Your task to perform on an android device: Go to location settings Image 0: 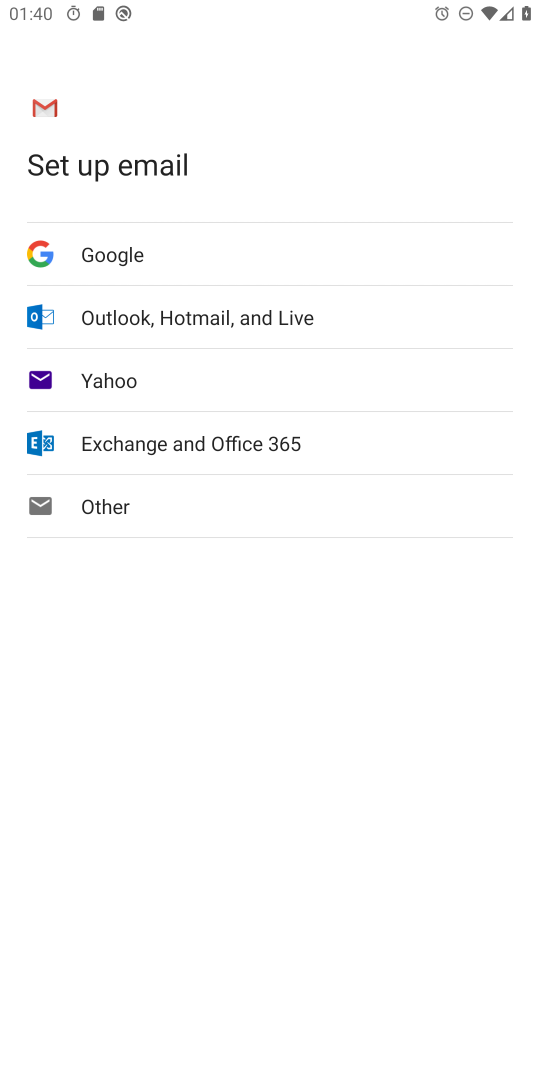
Step 0: press home button
Your task to perform on an android device: Go to location settings Image 1: 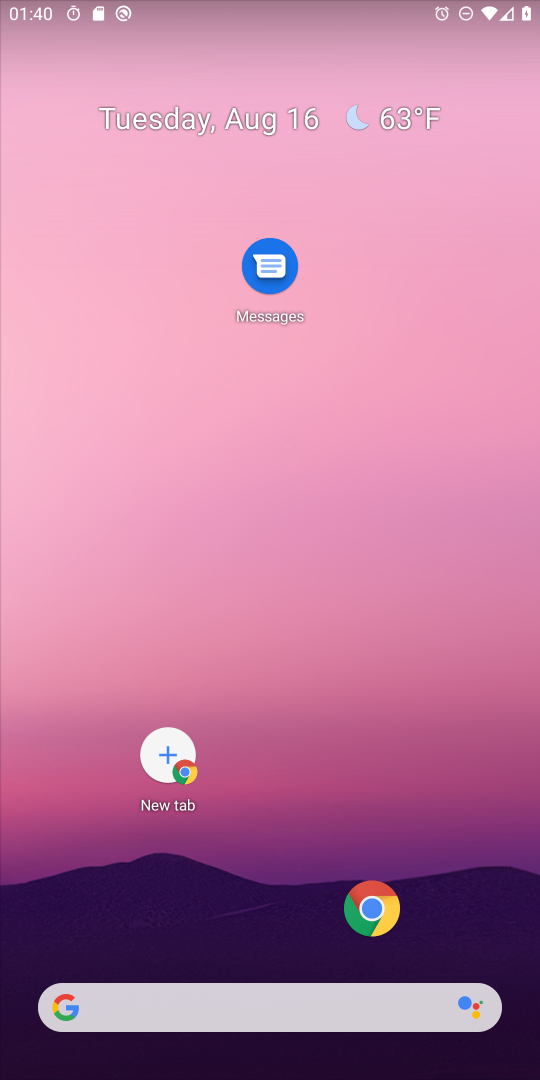
Step 1: drag from (219, 893) to (193, 135)
Your task to perform on an android device: Go to location settings Image 2: 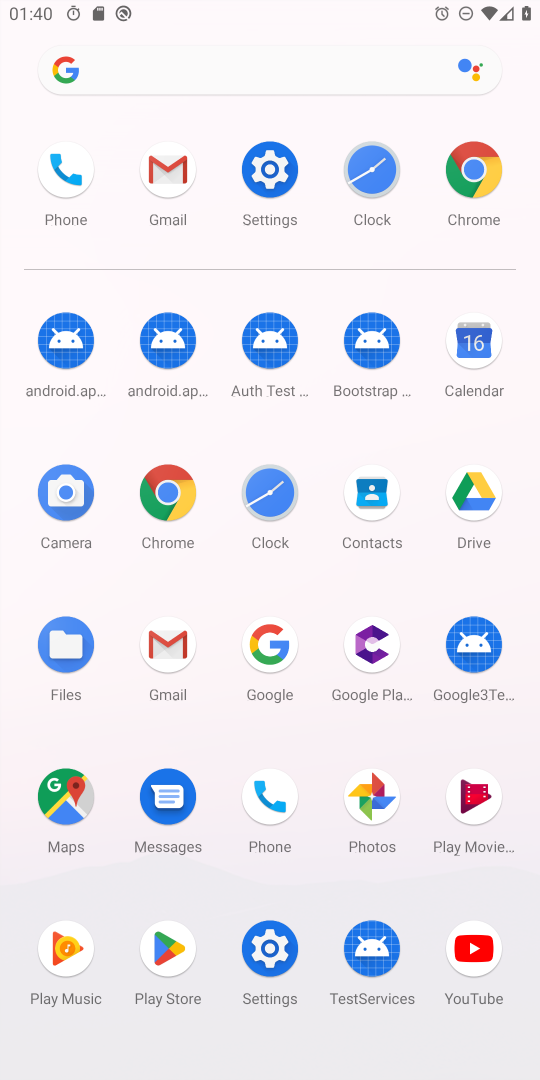
Step 2: click (279, 187)
Your task to perform on an android device: Go to location settings Image 3: 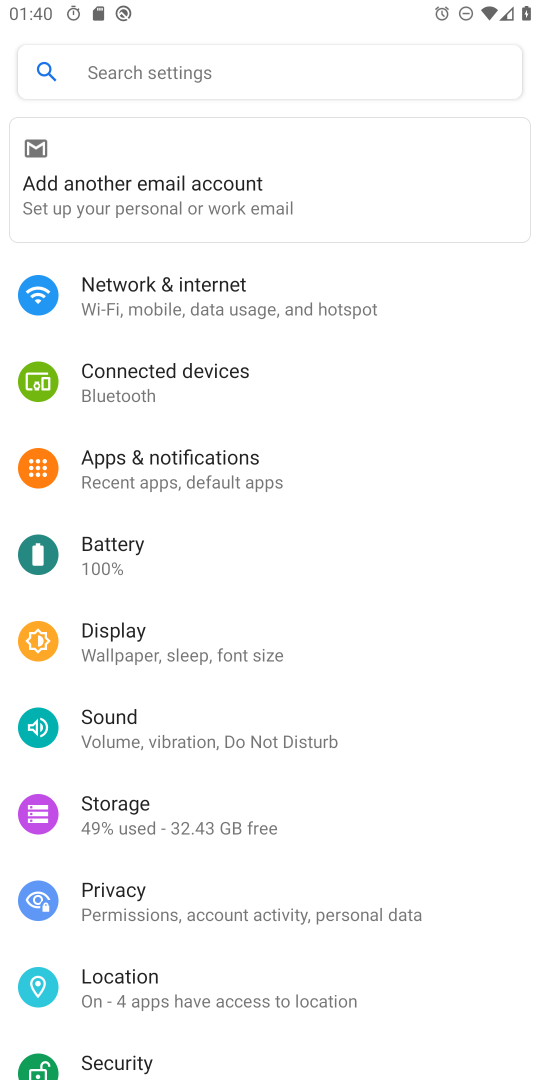
Step 3: click (218, 985)
Your task to perform on an android device: Go to location settings Image 4: 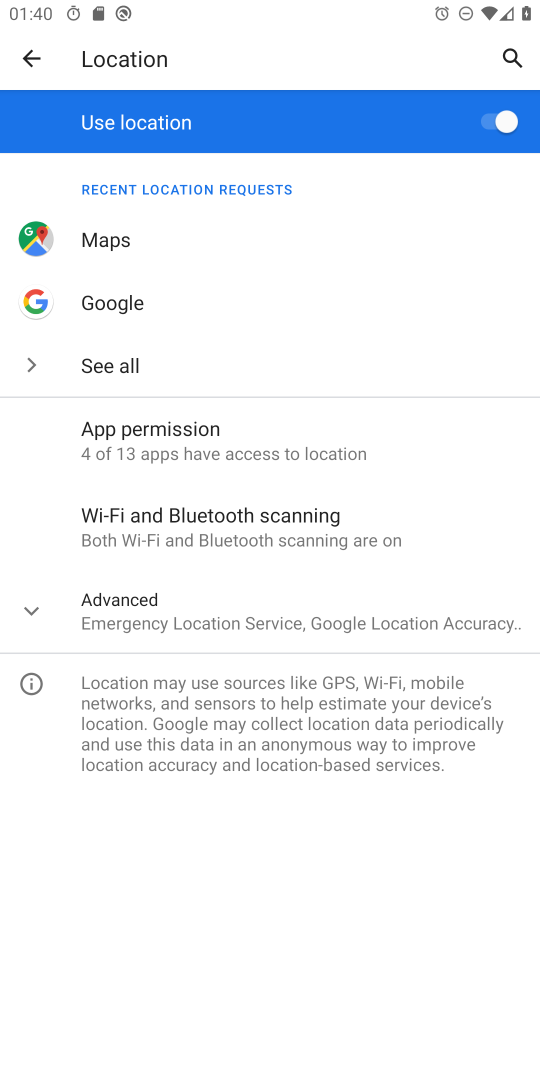
Step 4: task complete